Your task to perform on an android device: turn on wifi Image 0: 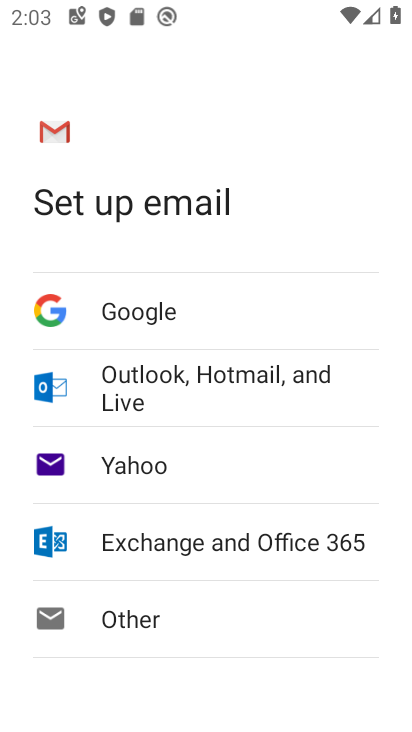
Step 0: press home button
Your task to perform on an android device: turn on wifi Image 1: 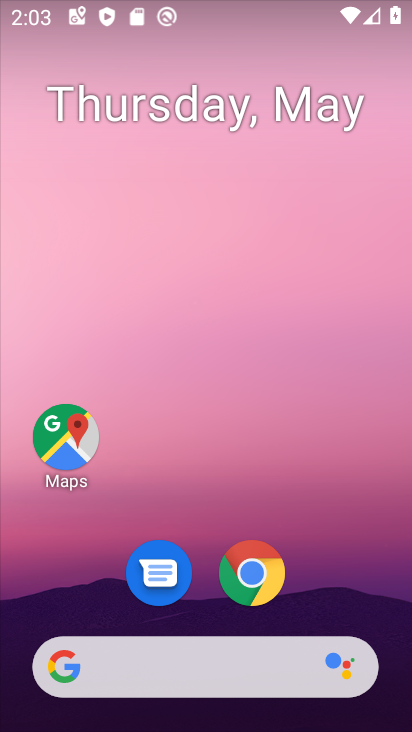
Step 1: drag from (367, 600) to (322, 130)
Your task to perform on an android device: turn on wifi Image 2: 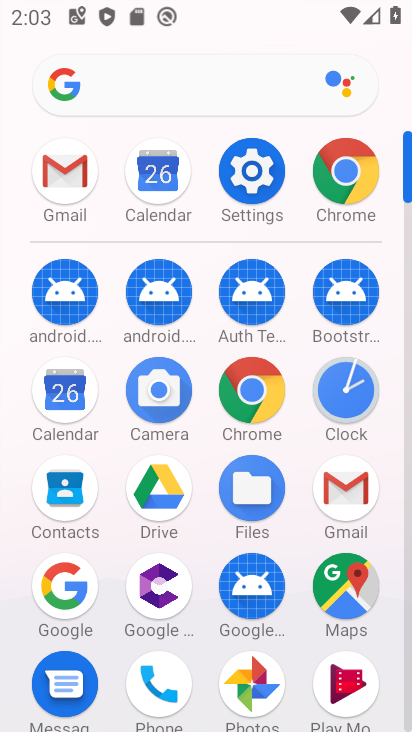
Step 2: click (257, 171)
Your task to perform on an android device: turn on wifi Image 3: 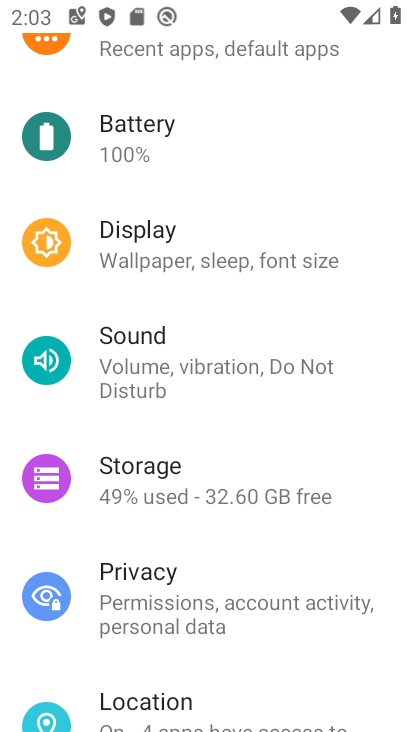
Step 3: drag from (212, 107) to (239, 619)
Your task to perform on an android device: turn on wifi Image 4: 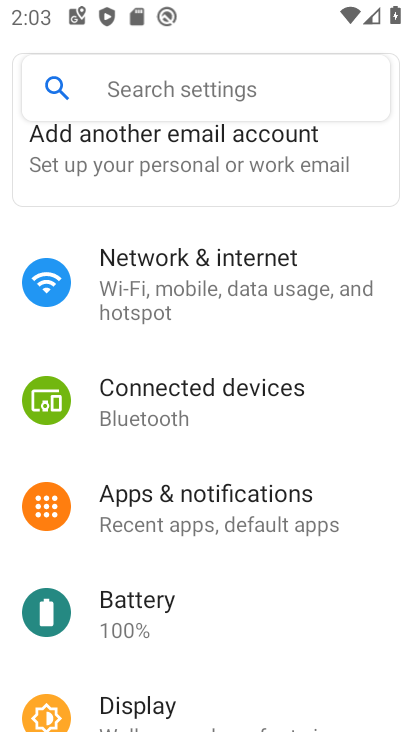
Step 4: click (255, 310)
Your task to perform on an android device: turn on wifi Image 5: 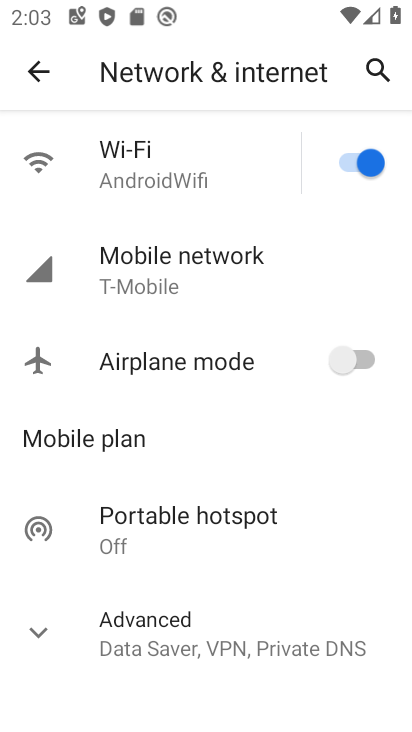
Step 5: task complete